Your task to perform on an android device: check data usage Image 0: 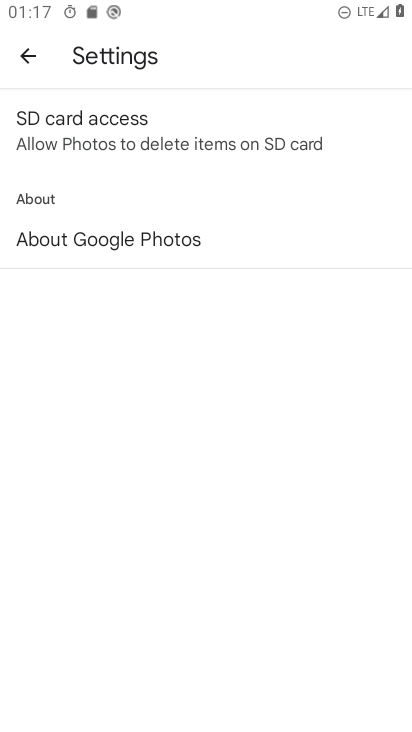
Step 0: press home button
Your task to perform on an android device: check data usage Image 1: 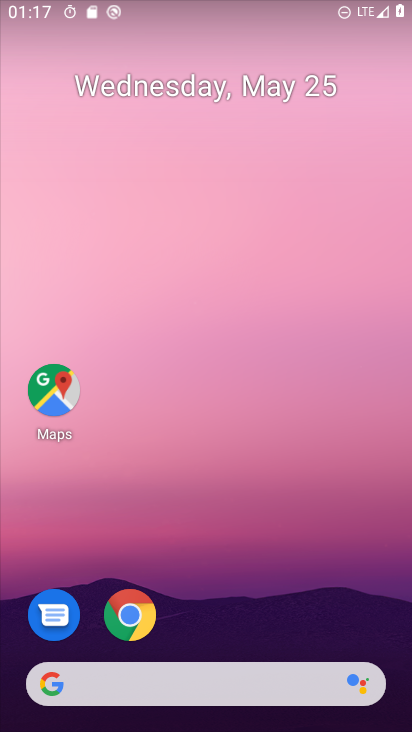
Step 1: drag from (258, 669) to (411, 95)
Your task to perform on an android device: check data usage Image 2: 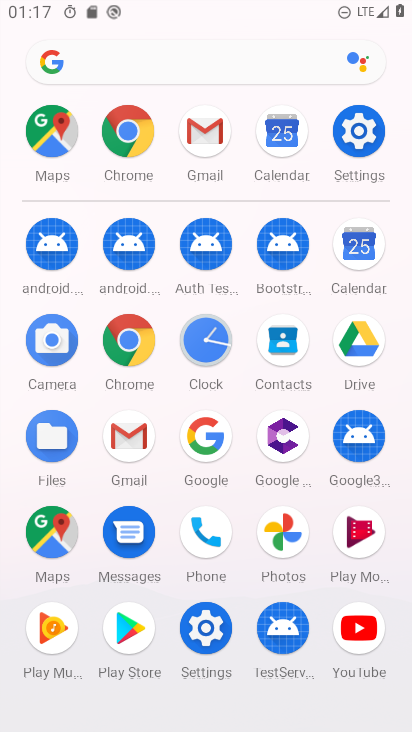
Step 2: click (367, 126)
Your task to perform on an android device: check data usage Image 3: 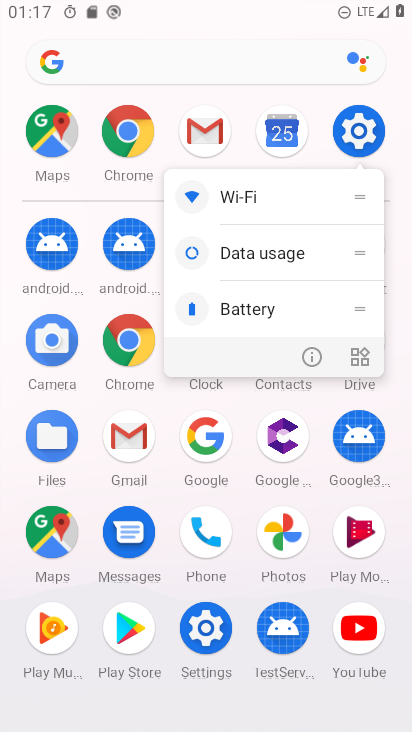
Step 3: click (341, 130)
Your task to perform on an android device: check data usage Image 4: 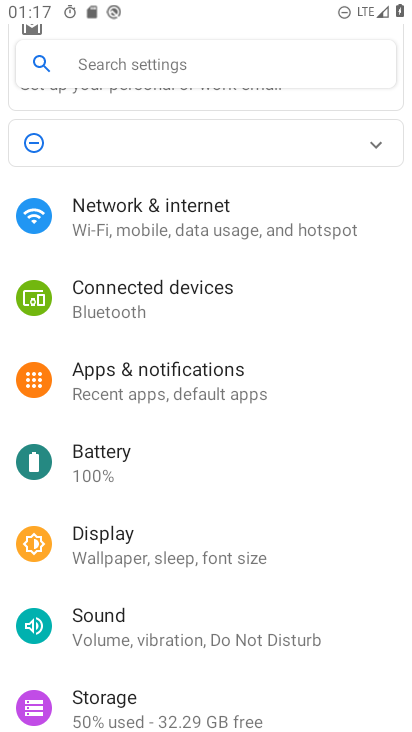
Step 4: click (168, 60)
Your task to perform on an android device: check data usage Image 5: 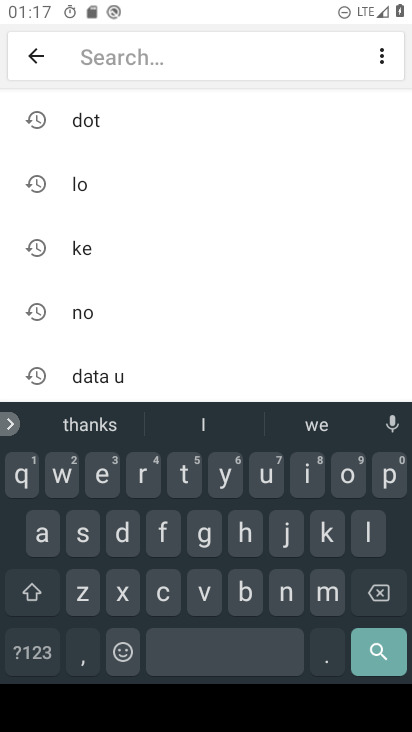
Step 5: click (122, 536)
Your task to perform on an android device: check data usage Image 6: 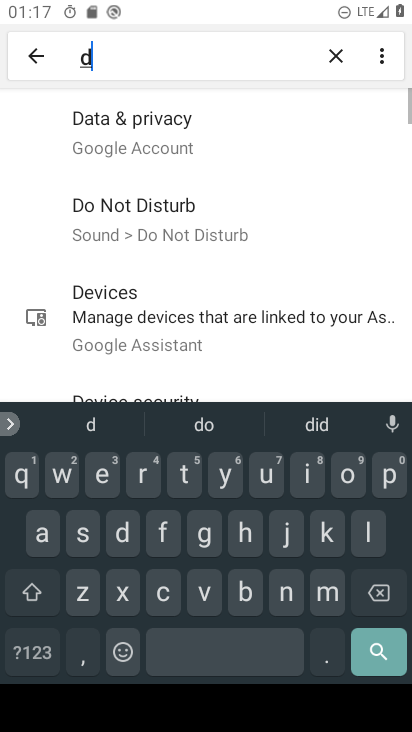
Step 6: click (38, 529)
Your task to perform on an android device: check data usage Image 7: 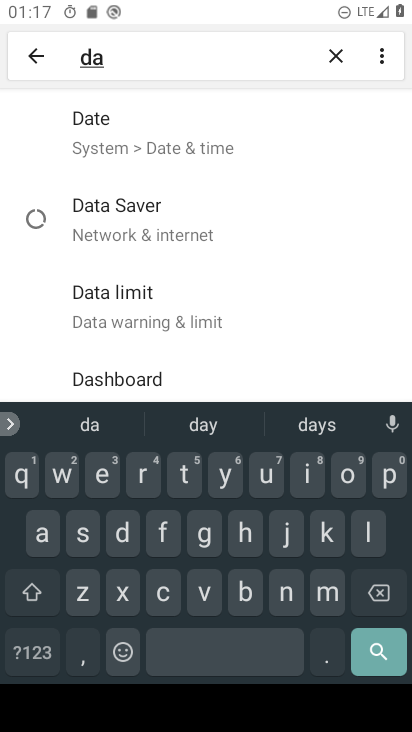
Step 7: click (185, 473)
Your task to perform on an android device: check data usage Image 8: 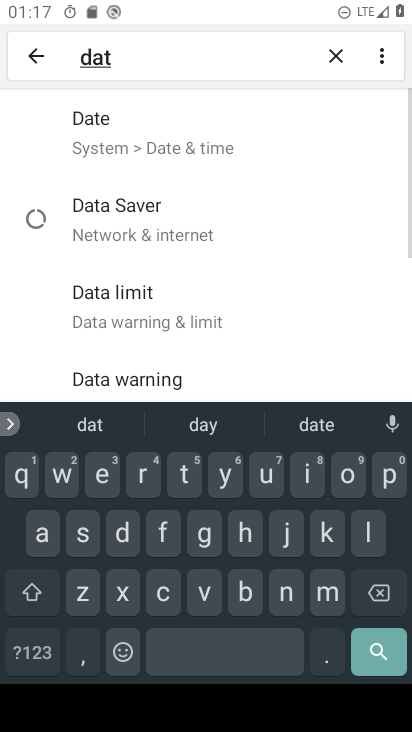
Step 8: click (41, 538)
Your task to perform on an android device: check data usage Image 9: 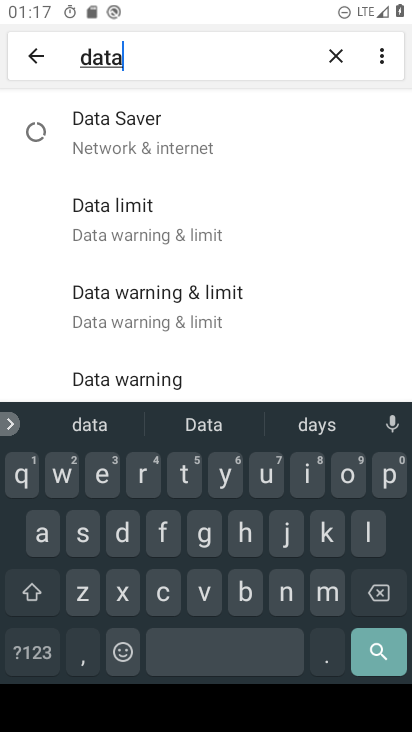
Step 9: click (215, 655)
Your task to perform on an android device: check data usage Image 10: 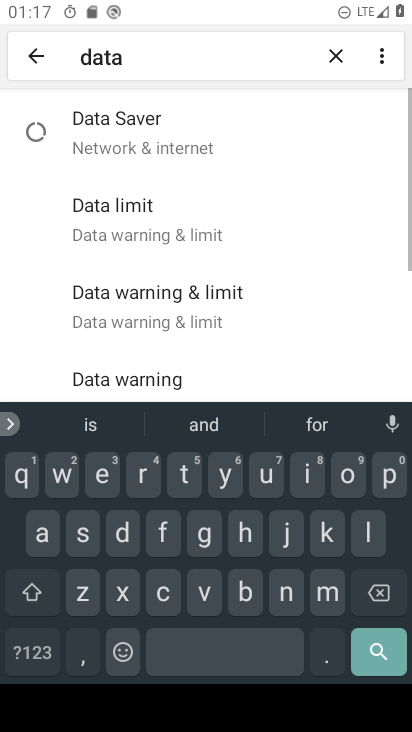
Step 10: click (267, 480)
Your task to perform on an android device: check data usage Image 11: 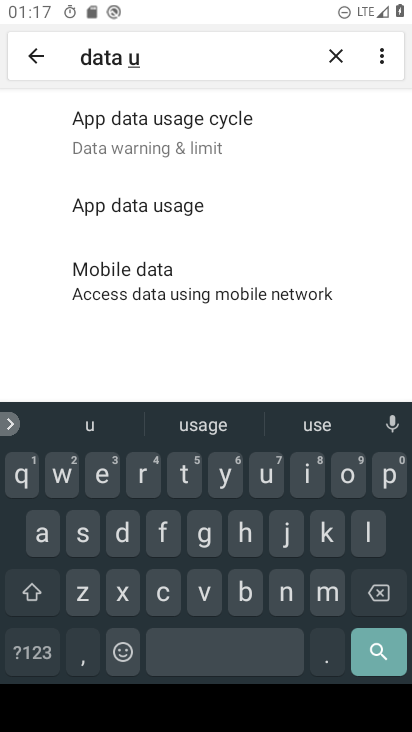
Step 11: click (189, 212)
Your task to perform on an android device: check data usage Image 12: 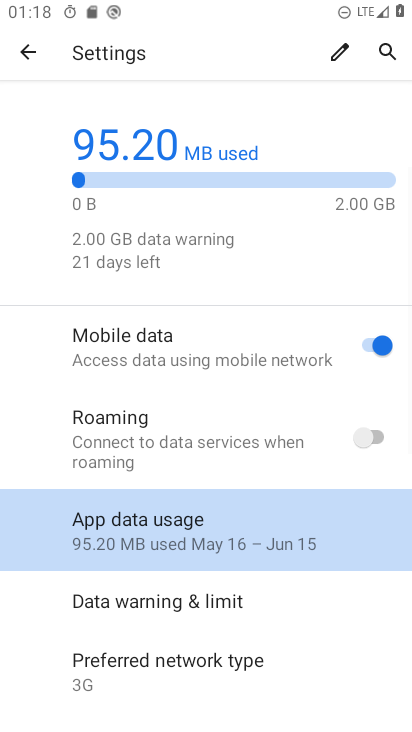
Step 12: task complete